Your task to perform on an android device: open wifi settings Image 0: 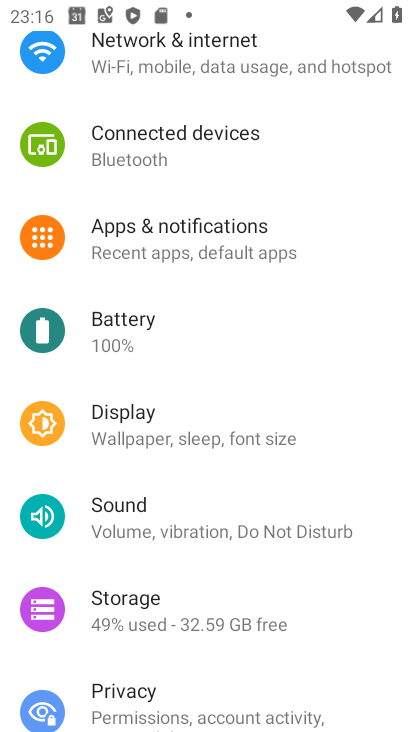
Step 0: drag from (233, 213) to (239, 360)
Your task to perform on an android device: open wifi settings Image 1: 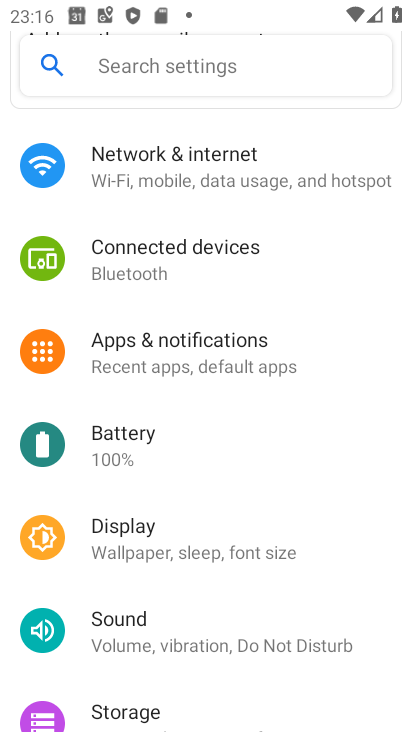
Step 1: click (230, 179)
Your task to perform on an android device: open wifi settings Image 2: 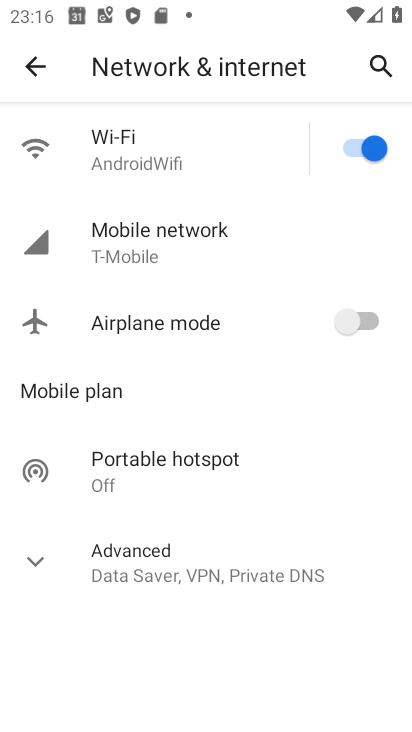
Step 2: click (186, 145)
Your task to perform on an android device: open wifi settings Image 3: 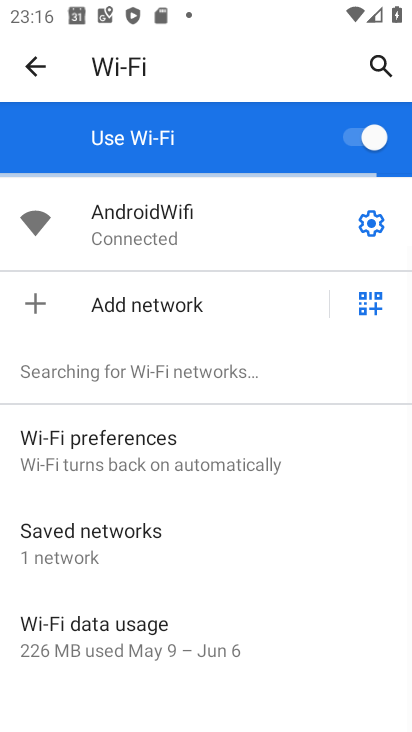
Step 3: task complete